Your task to perform on an android device: turn on priority inbox in the gmail app Image 0: 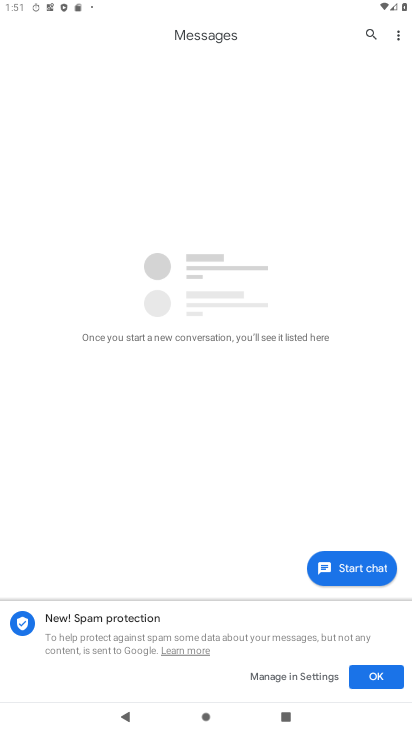
Step 0: press home button
Your task to perform on an android device: turn on priority inbox in the gmail app Image 1: 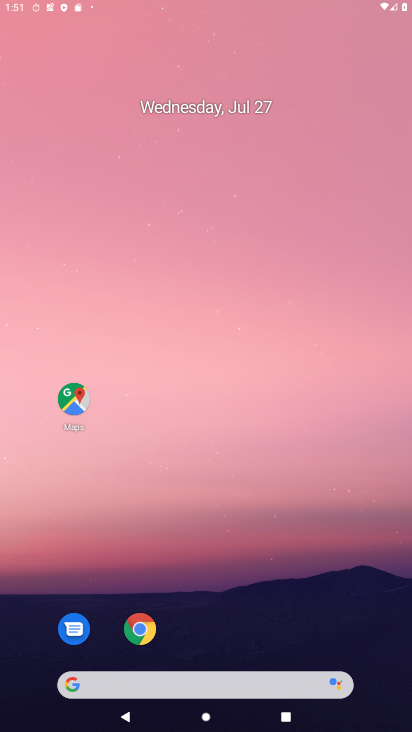
Step 1: drag from (319, 651) to (255, 26)
Your task to perform on an android device: turn on priority inbox in the gmail app Image 2: 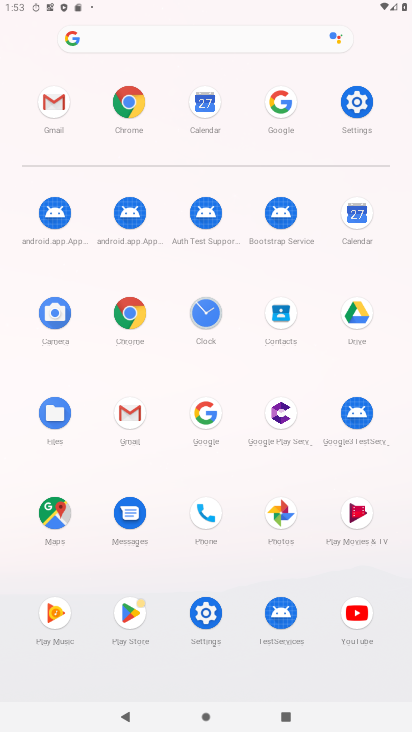
Step 2: click (131, 412)
Your task to perform on an android device: turn on priority inbox in the gmail app Image 3: 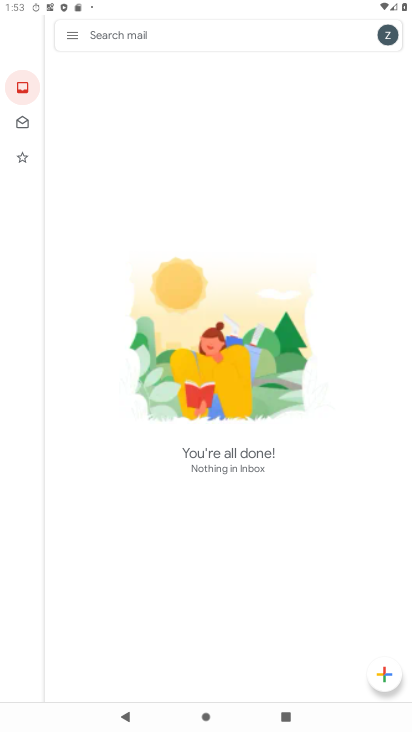
Step 3: click (73, 29)
Your task to perform on an android device: turn on priority inbox in the gmail app Image 4: 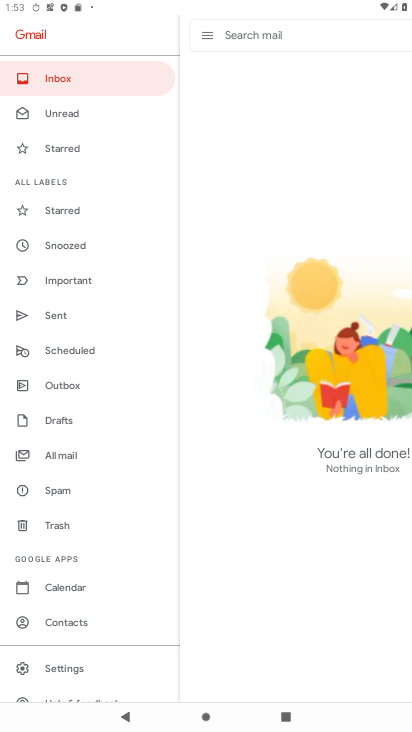
Step 4: click (76, 679)
Your task to perform on an android device: turn on priority inbox in the gmail app Image 5: 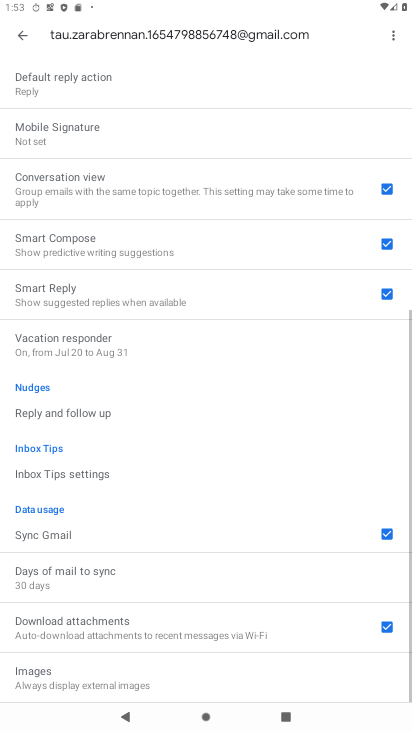
Step 5: drag from (58, 188) to (125, 729)
Your task to perform on an android device: turn on priority inbox in the gmail app Image 6: 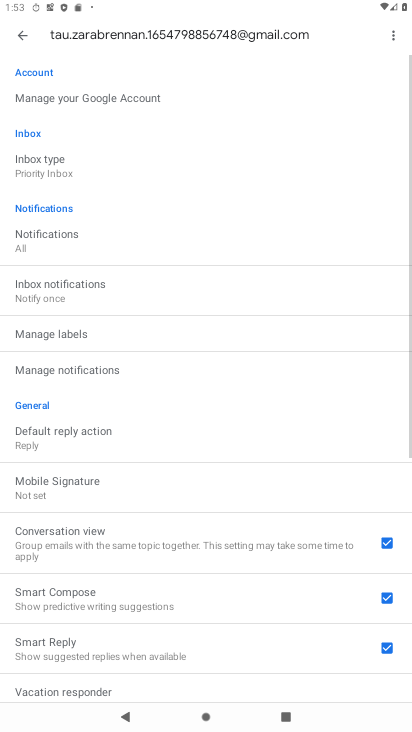
Step 6: click (53, 166)
Your task to perform on an android device: turn on priority inbox in the gmail app Image 7: 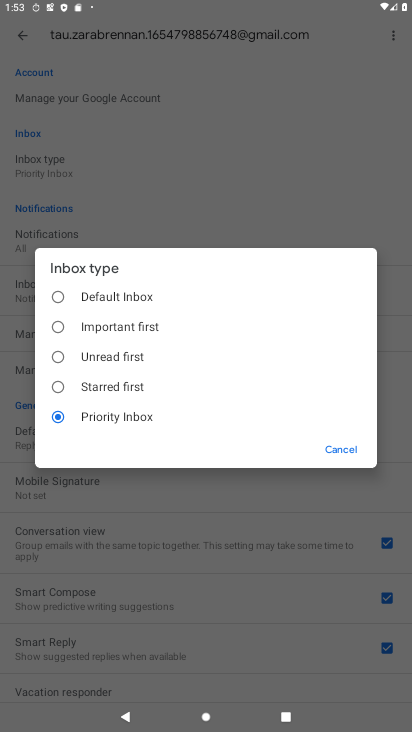
Step 7: task complete